Your task to perform on an android device: Go to ESPN.com Image 0: 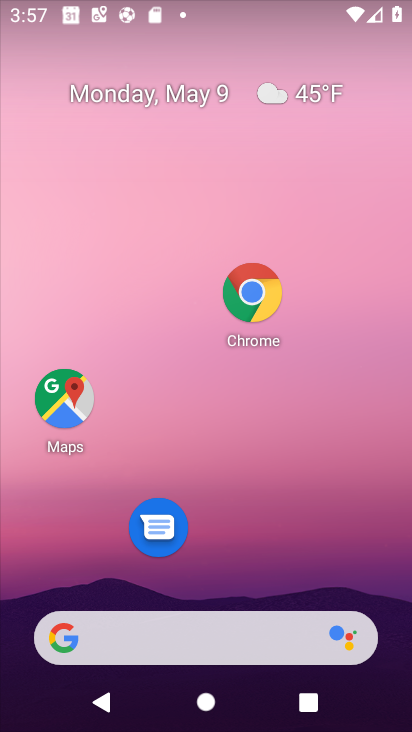
Step 0: click (254, 299)
Your task to perform on an android device: Go to ESPN.com Image 1: 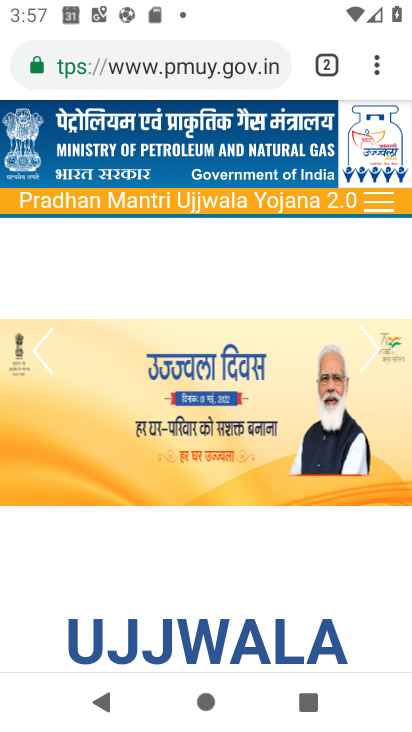
Step 1: click (249, 74)
Your task to perform on an android device: Go to ESPN.com Image 2: 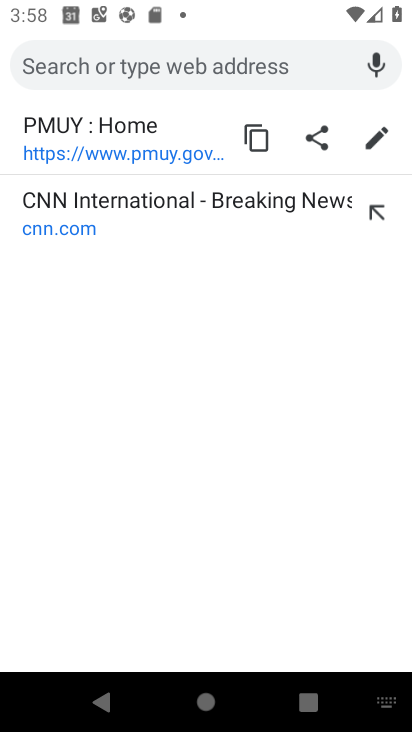
Step 2: type "espn.com"
Your task to perform on an android device: Go to ESPN.com Image 3: 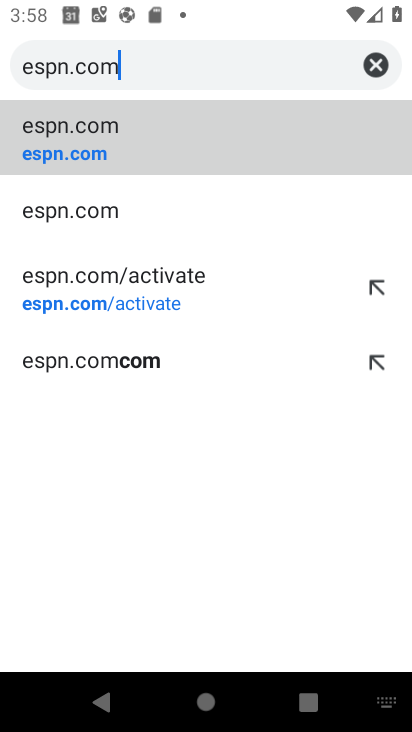
Step 3: click (281, 154)
Your task to perform on an android device: Go to ESPN.com Image 4: 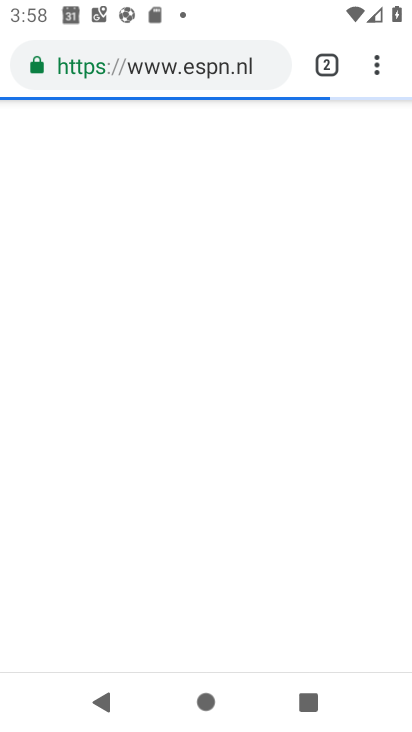
Step 4: task complete